Your task to perform on an android device: Open Google Chrome Image 0: 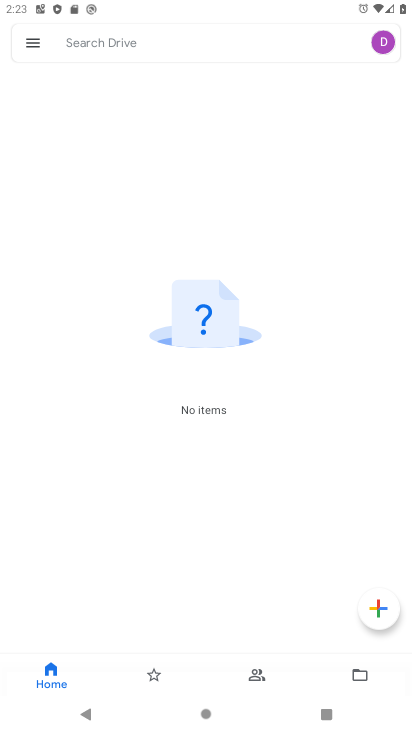
Step 0: press home button
Your task to perform on an android device: Open Google Chrome Image 1: 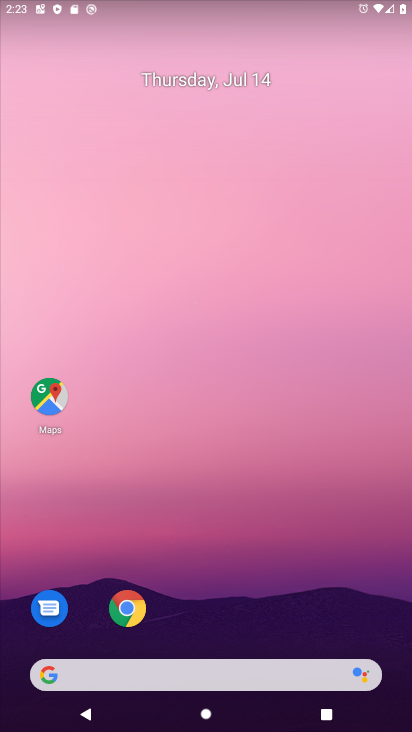
Step 1: click (130, 606)
Your task to perform on an android device: Open Google Chrome Image 2: 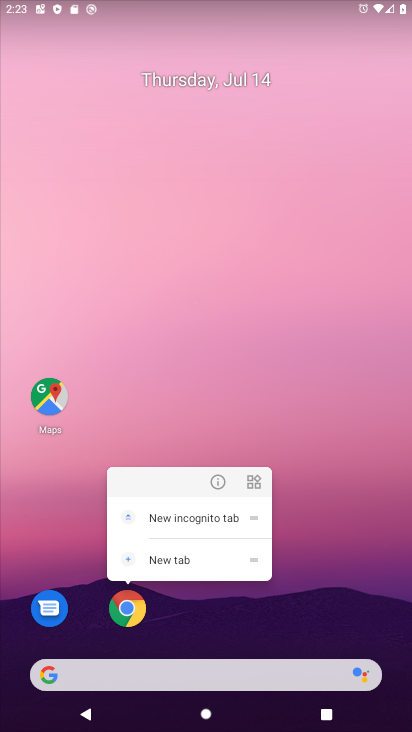
Step 2: click (127, 605)
Your task to perform on an android device: Open Google Chrome Image 3: 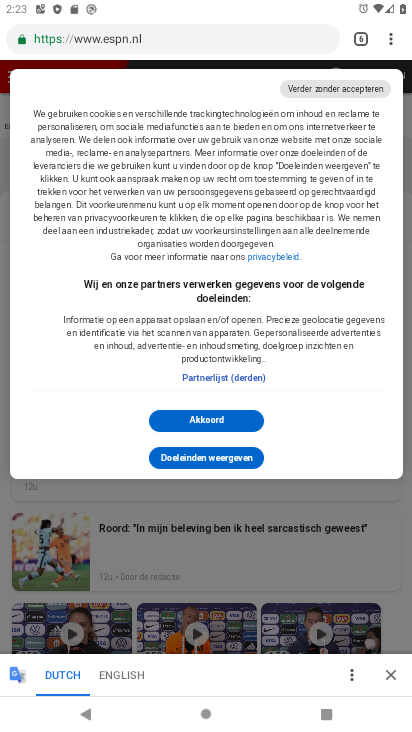
Step 3: task complete